Your task to perform on an android device: turn off sleep mode Image 0: 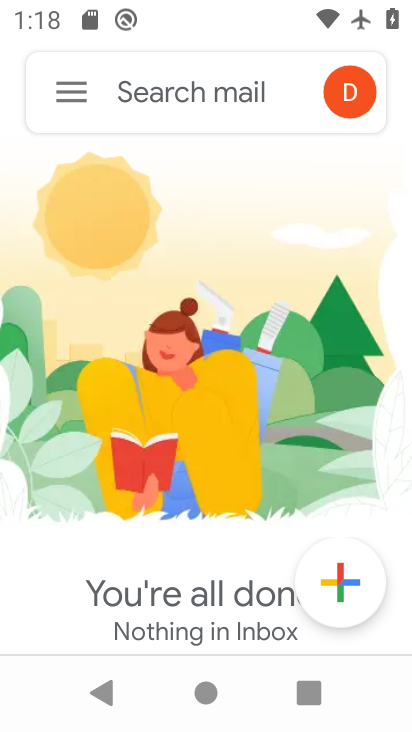
Step 0: press home button
Your task to perform on an android device: turn off sleep mode Image 1: 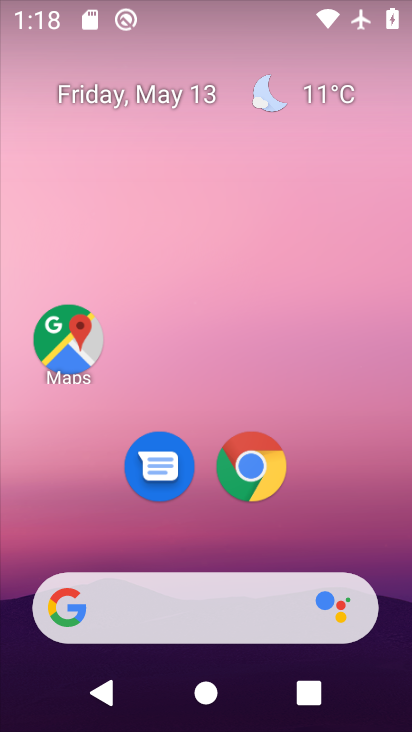
Step 1: drag from (302, 525) to (303, 33)
Your task to perform on an android device: turn off sleep mode Image 2: 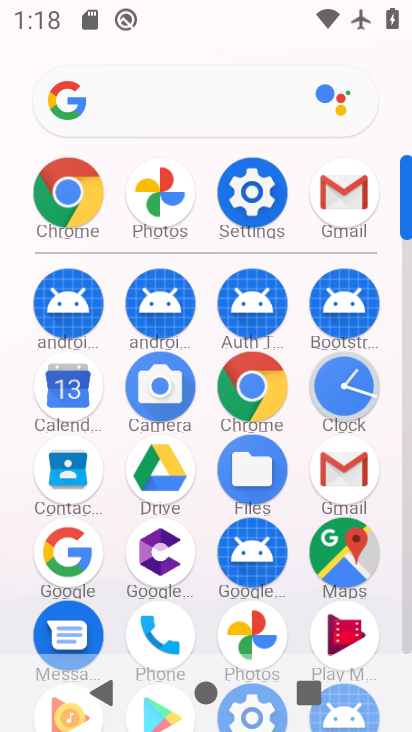
Step 2: click (254, 198)
Your task to perform on an android device: turn off sleep mode Image 3: 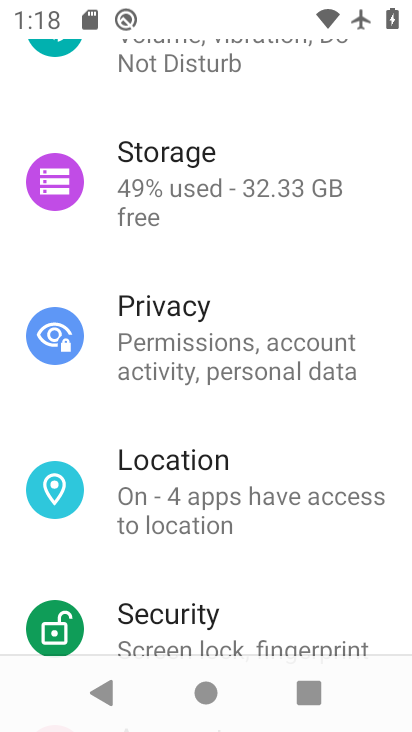
Step 3: task complete